Your task to perform on an android device: see creations saved in the google photos Image 0: 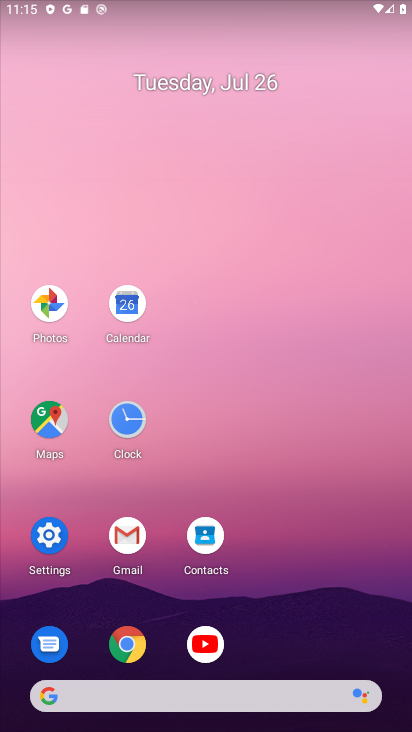
Step 0: click (44, 302)
Your task to perform on an android device: see creations saved in the google photos Image 1: 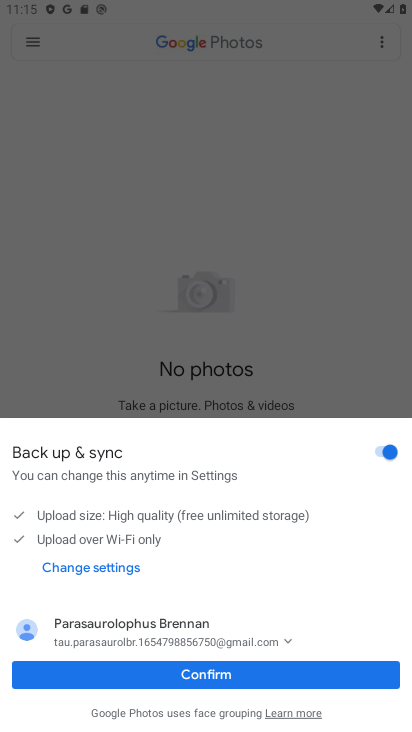
Step 1: click (210, 676)
Your task to perform on an android device: see creations saved in the google photos Image 2: 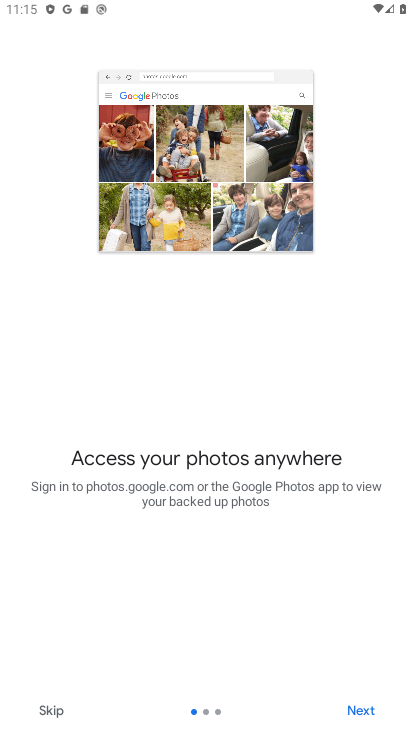
Step 2: click (353, 709)
Your task to perform on an android device: see creations saved in the google photos Image 3: 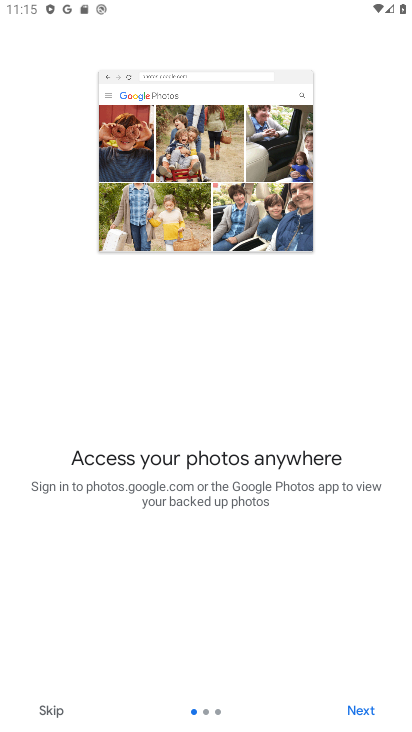
Step 3: click (353, 709)
Your task to perform on an android device: see creations saved in the google photos Image 4: 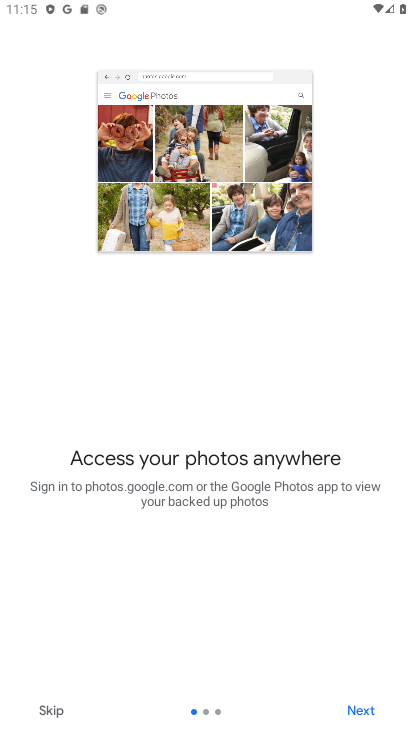
Step 4: click (353, 709)
Your task to perform on an android device: see creations saved in the google photos Image 5: 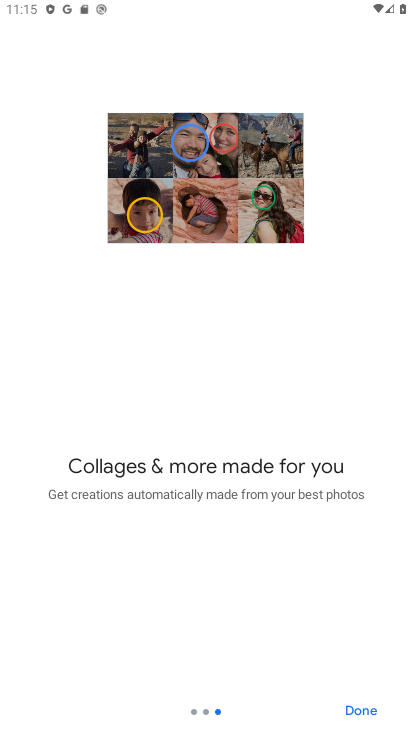
Step 5: click (353, 709)
Your task to perform on an android device: see creations saved in the google photos Image 6: 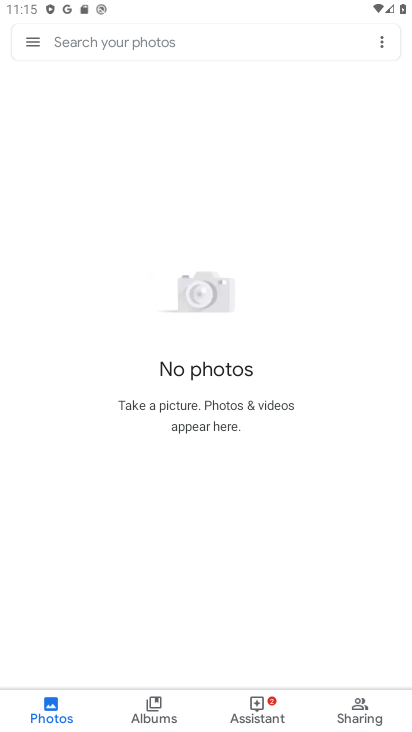
Step 6: click (111, 44)
Your task to perform on an android device: see creations saved in the google photos Image 7: 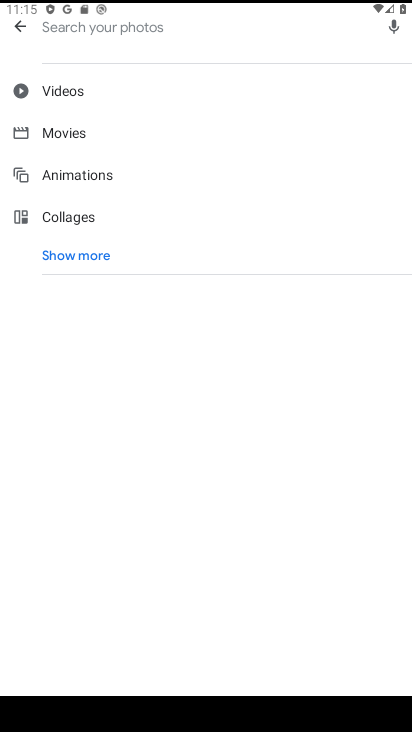
Step 7: click (60, 255)
Your task to perform on an android device: see creations saved in the google photos Image 8: 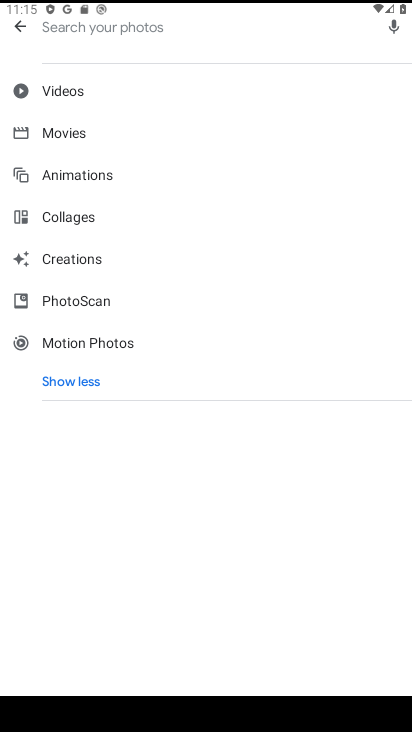
Step 8: click (49, 255)
Your task to perform on an android device: see creations saved in the google photos Image 9: 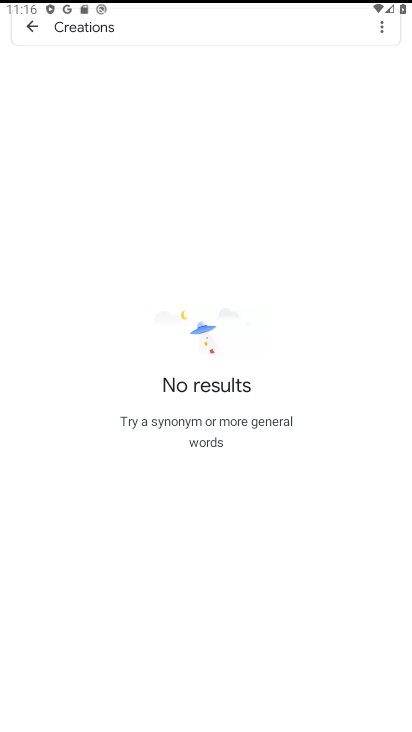
Step 9: task complete